Your task to perform on an android device: Is it going to rain tomorrow? Image 0: 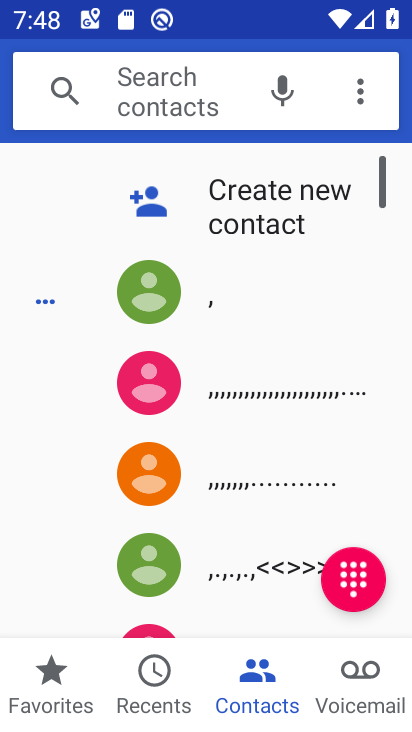
Step 0: press home button
Your task to perform on an android device: Is it going to rain tomorrow? Image 1: 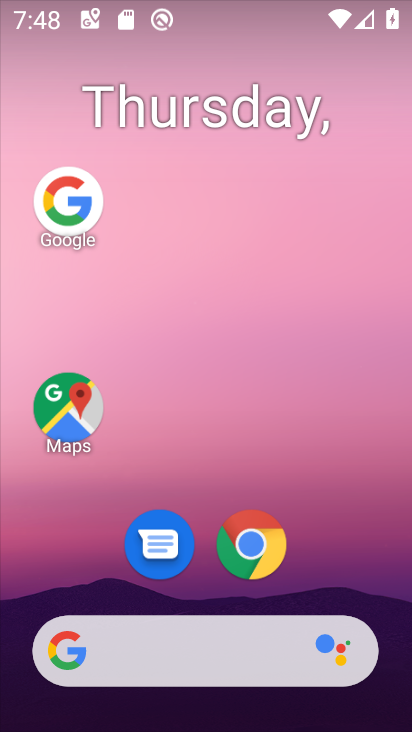
Step 1: drag from (287, 730) to (314, 216)
Your task to perform on an android device: Is it going to rain tomorrow? Image 2: 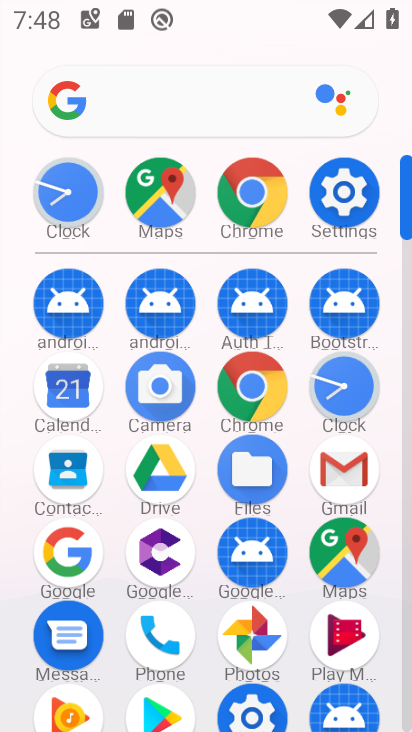
Step 2: click (170, 103)
Your task to perform on an android device: Is it going to rain tomorrow? Image 3: 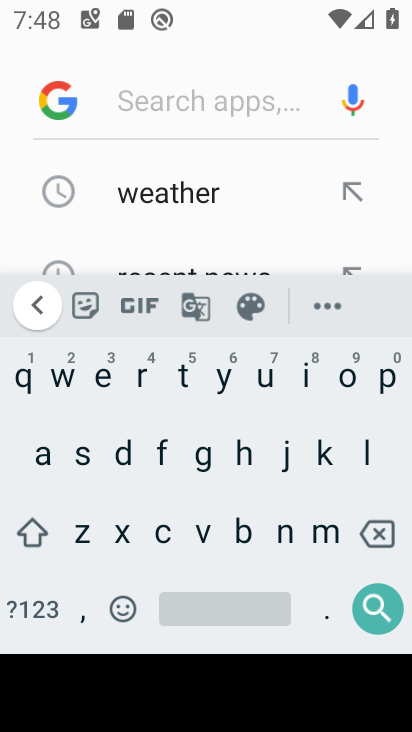
Step 3: click (165, 194)
Your task to perform on an android device: Is it going to rain tomorrow? Image 4: 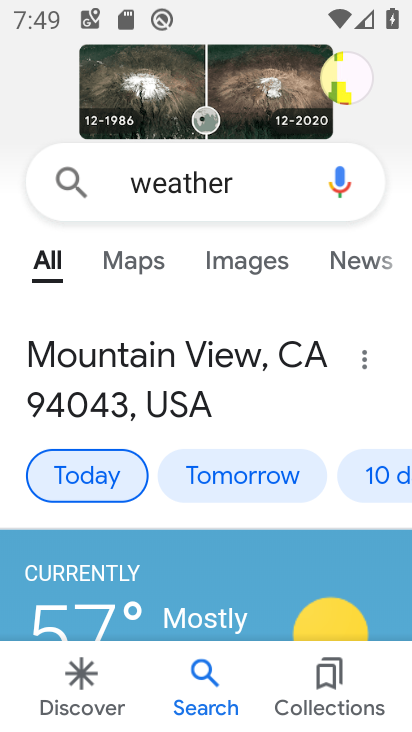
Step 4: click (390, 471)
Your task to perform on an android device: Is it going to rain tomorrow? Image 5: 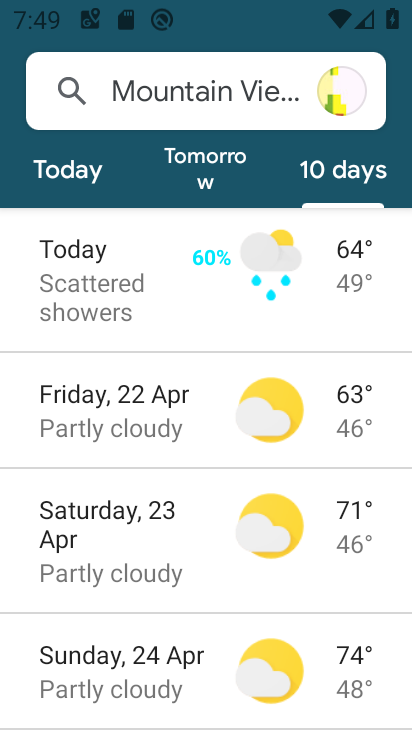
Step 5: task complete